Your task to perform on an android device: Turn off the flashlight Image 0: 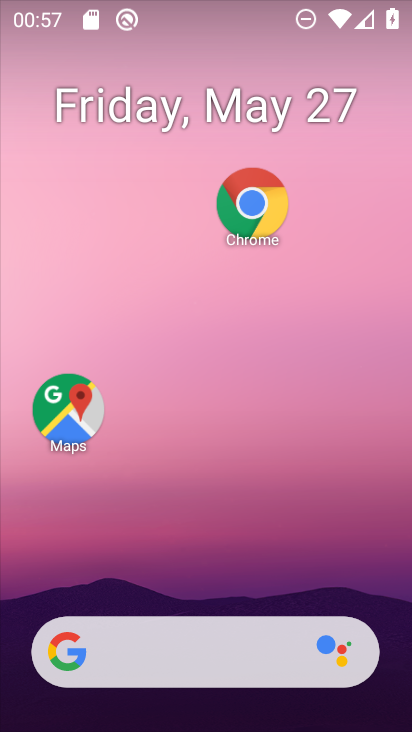
Step 0: drag from (229, 571) to (241, 487)
Your task to perform on an android device: Turn off the flashlight Image 1: 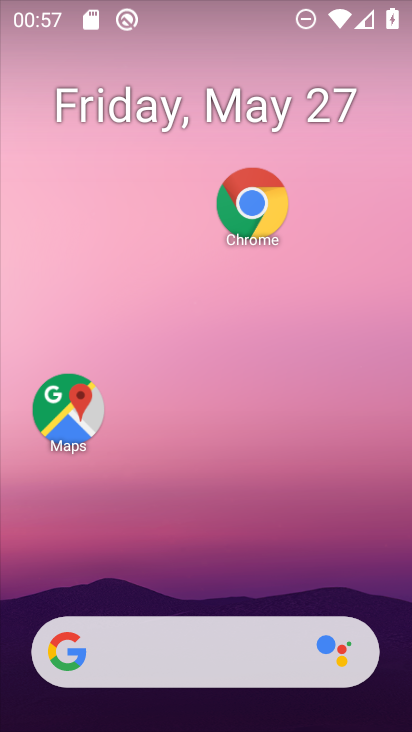
Step 1: drag from (188, 538) to (170, 88)
Your task to perform on an android device: Turn off the flashlight Image 2: 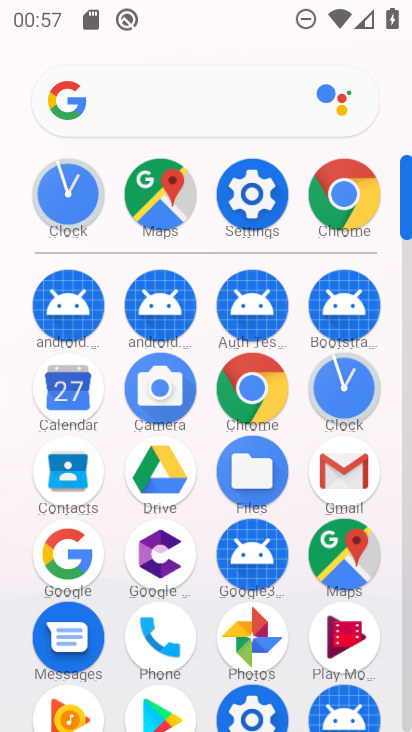
Step 2: click (244, 234)
Your task to perform on an android device: Turn off the flashlight Image 3: 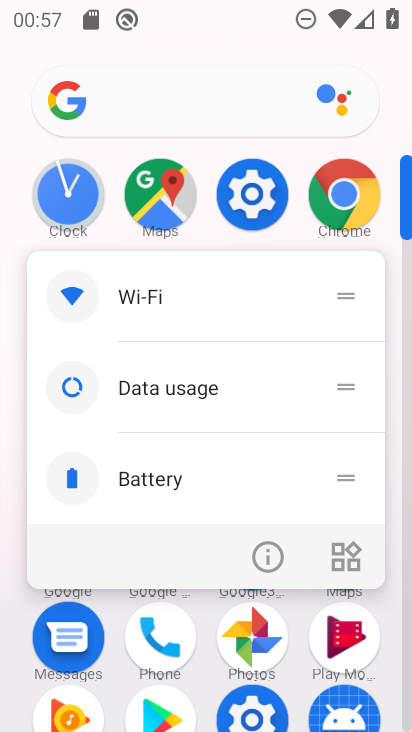
Step 3: click (273, 550)
Your task to perform on an android device: Turn off the flashlight Image 4: 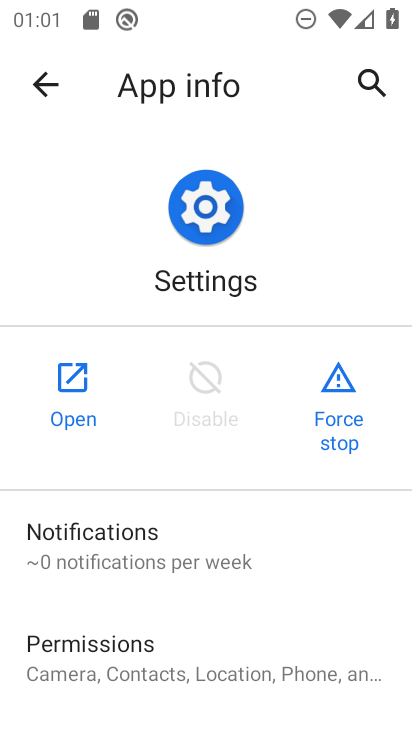
Step 4: click (87, 417)
Your task to perform on an android device: Turn off the flashlight Image 5: 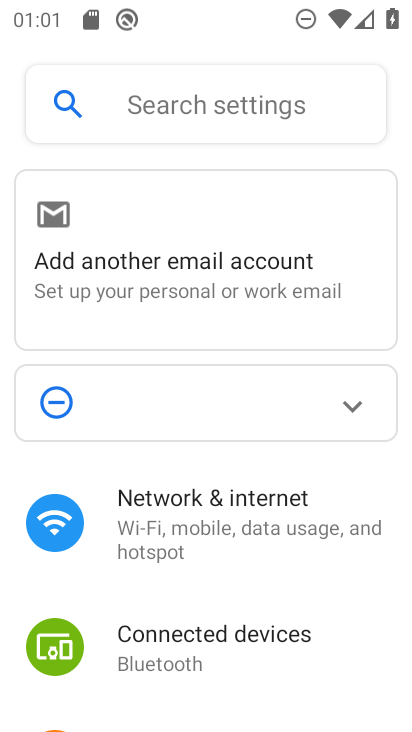
Step 5: click (170, 124)
Your task to perform on an android device: Turn off the flashlight Image 6: 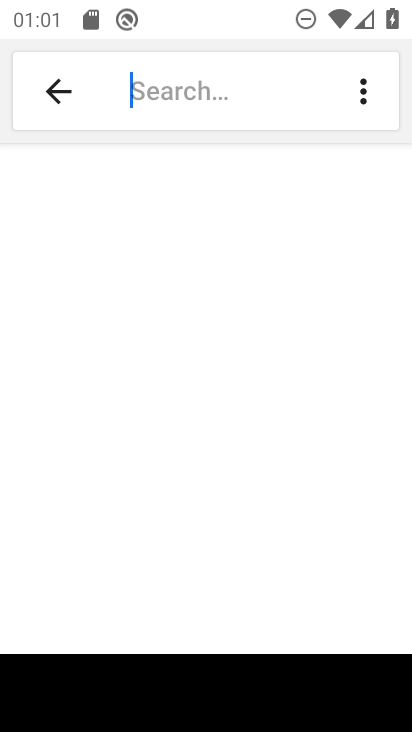
Step 6: drag from (312, 729) to (306, 497)
Your task to perform on an android device: Turn off the flashlight Image 7: 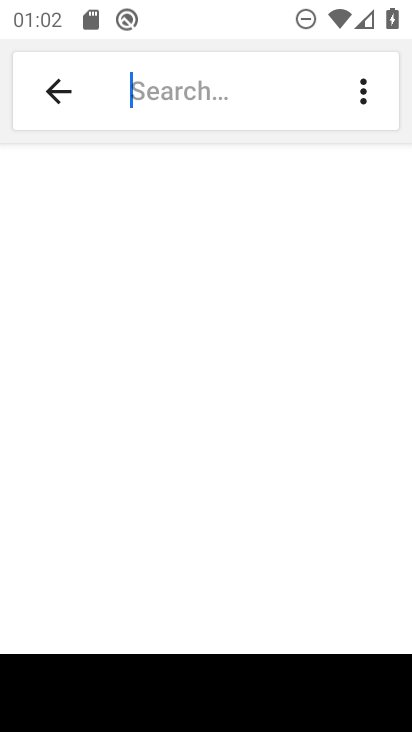
Step 7: type " flashlight"
Your task to perform on an android device: Turn off the flashlight Image 8: 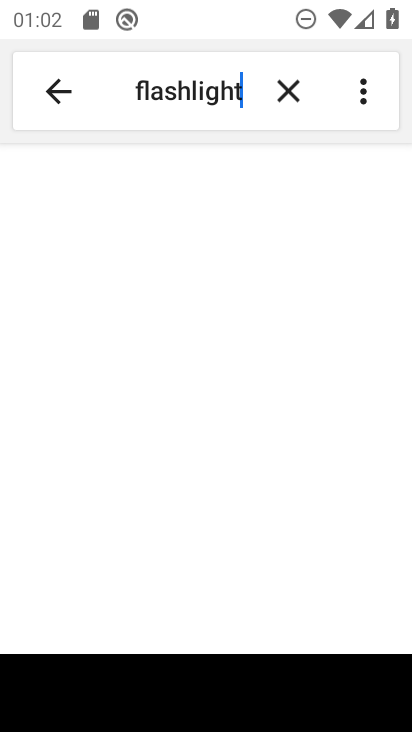
Step 8: type ""
Your task to perform on an android device: Turn off the flashlight Image 9: 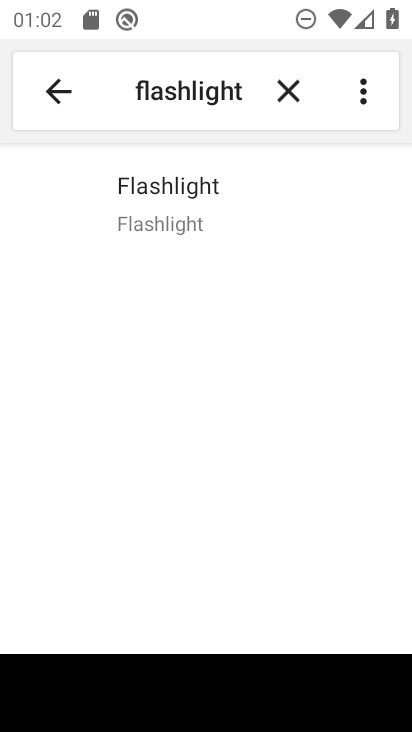
Step 9: click (117, 197)
Your task to perform on an android device: Turn off the flashlight Image 10: 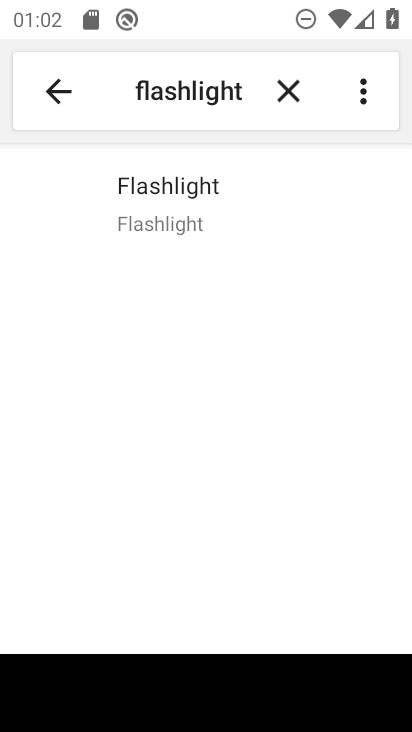
Step 10: task complete